Your task to perform on an android device: Open Wikipedia Image 0: 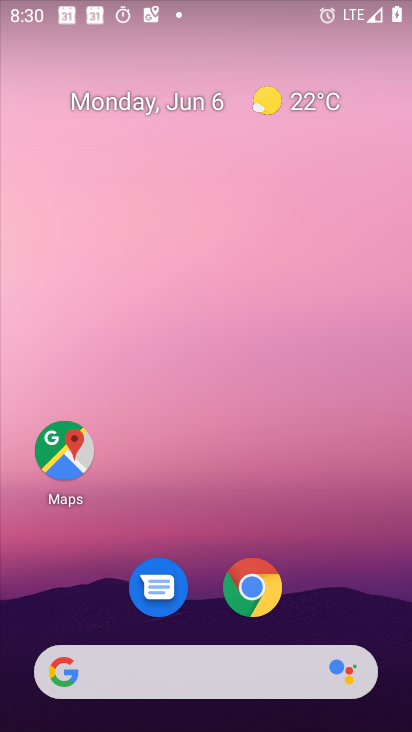
Step 0: click (252, 589)
Your task to perform on an android device: Open Wikipedia Image 1: 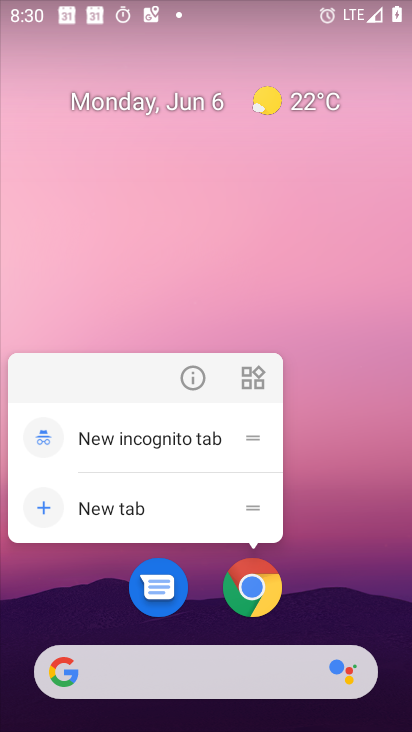
Step 1: click (229, 588)
Your task to perform on an android device: Open Wikipedia Image 2: 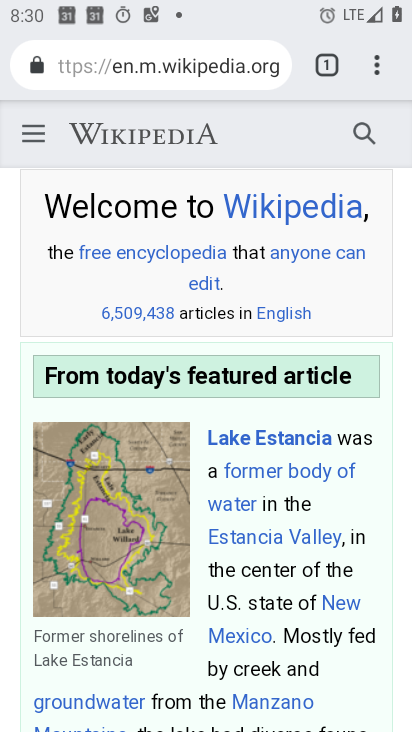
Step 2: task complete